Your task to perform on an android device: Go to battery settings Image 0: 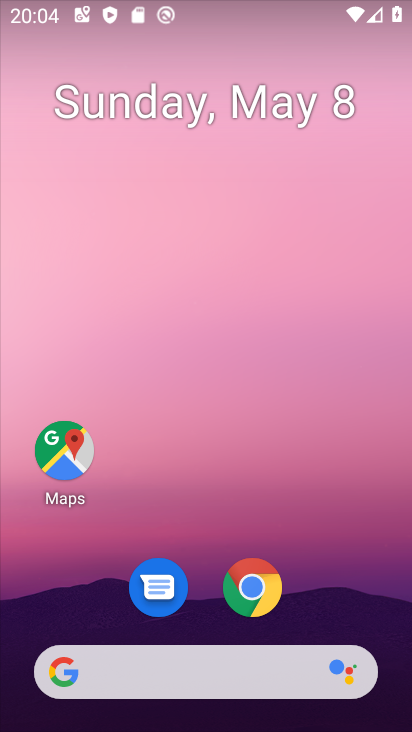
Step 0: drag from (207, 522) to (214, 60)
Your task to perform on an android device: Go to battery settings Image 1: 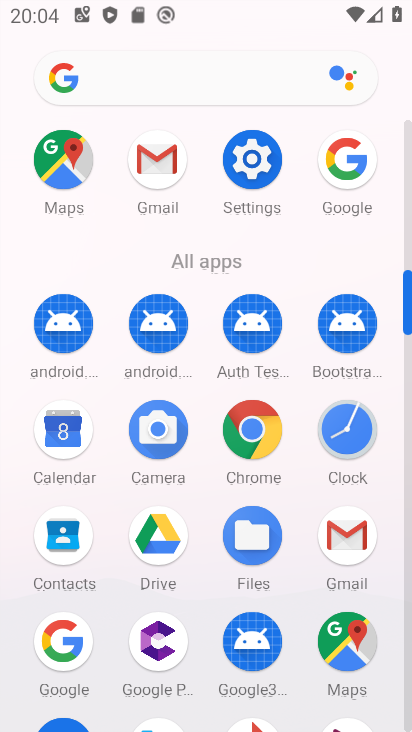
Step 1: click (246, 160)
Your task to perform on an android device: Go to battery settings Image 2: 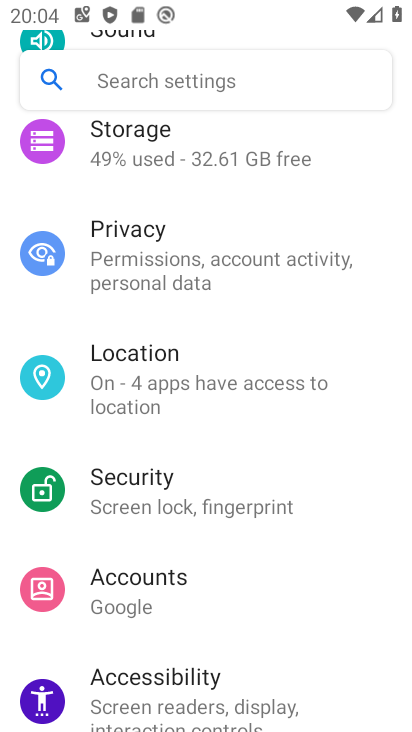
Step 2: drag from (191, 322) to (187, 423)
Your task to perform on an android device: Go to battery settings Image 3: 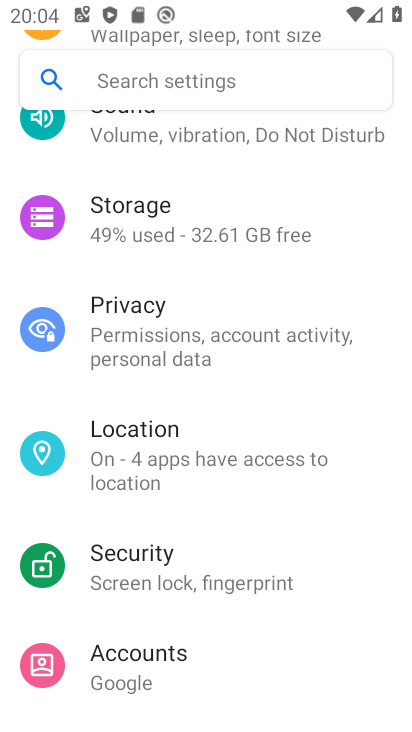
Step 3: drag from (177, 268) to (218, 362)
Your task to perform on an android device: Go to battery settings Image 4: 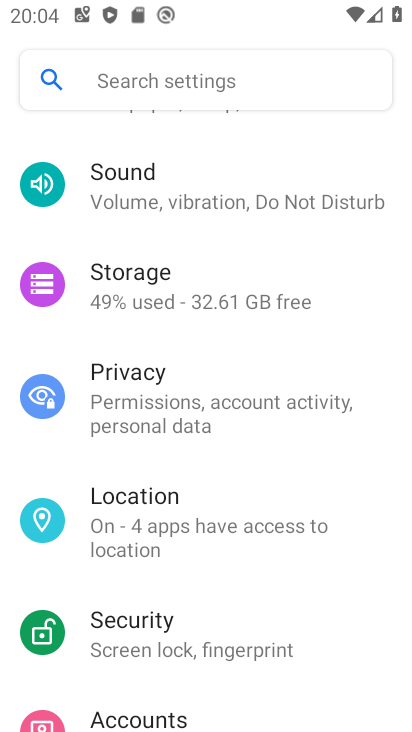
Step 4: drag from (201, 247) to (211, 339)
Your task to perform on an android device: Go to battery settings Image 5: 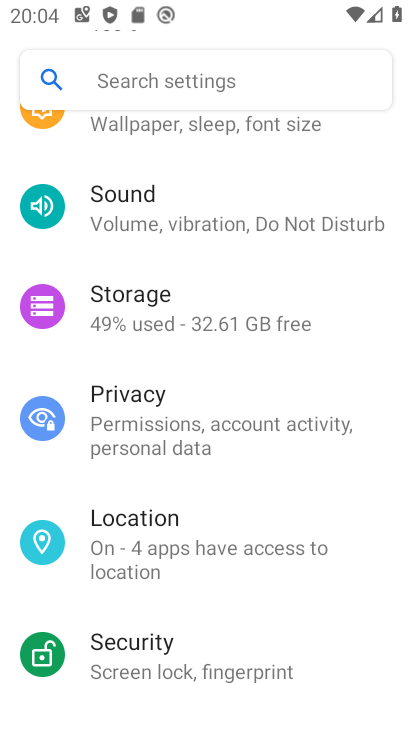
Step 5: drag from (176, 178) to (199, 294)
Your task to perform on an android device: Go to battery settings Image 6: 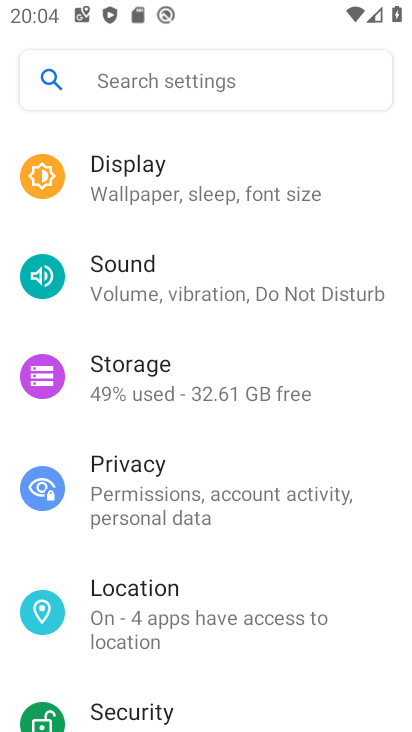
Step 6: drag from (215, 138) to (223, 338)
Your task to perform on an android device: Go to battery settings Image 7: 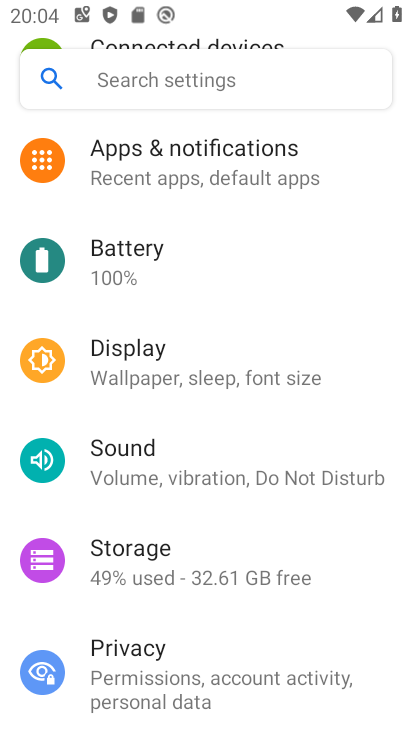
Step 7: click (148, 259)
Your task to perform on an android device: Go to battery settings Image 8: 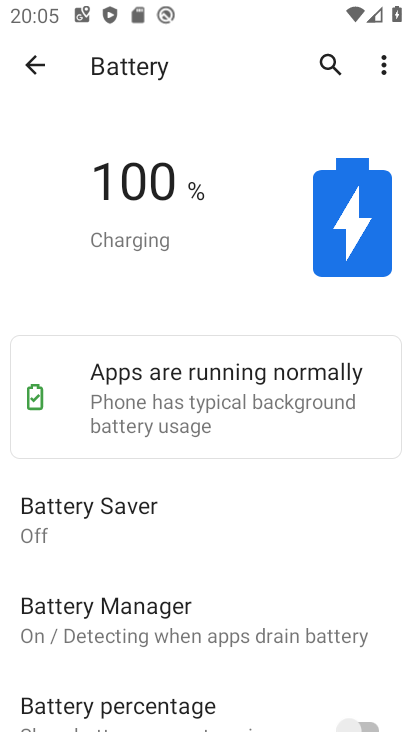
Step 8: task complete